Your task to perform on an android device: Open my contact list Image 0: 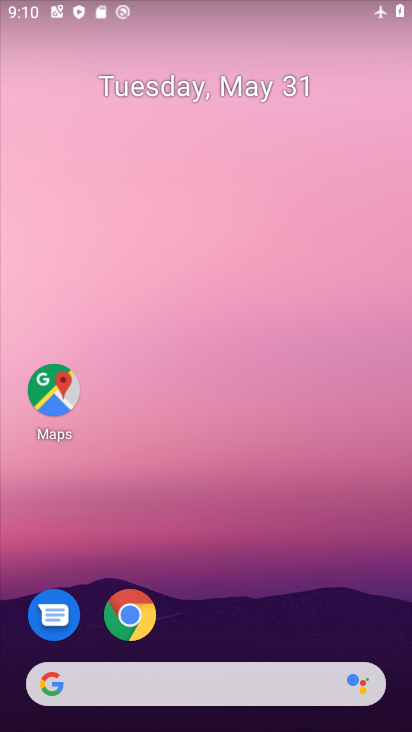
Step 0: drag from (339, 637) to (305, 70)
Your task to perform on an android device: Open my contact list Image 1: 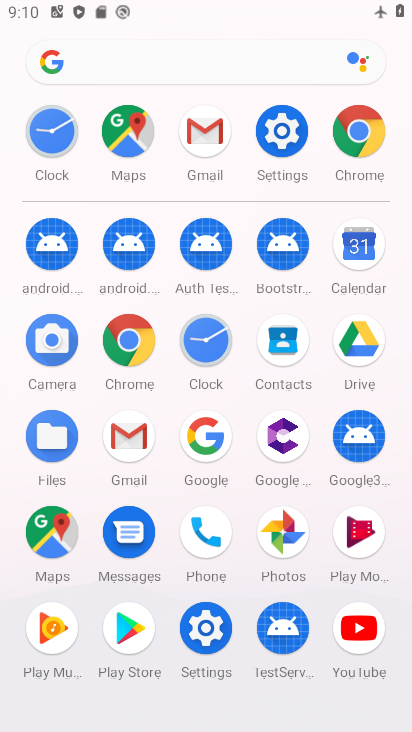
Step 1: click (280, 342)
Your task to perform on an android device: Open my contact list Image 2: 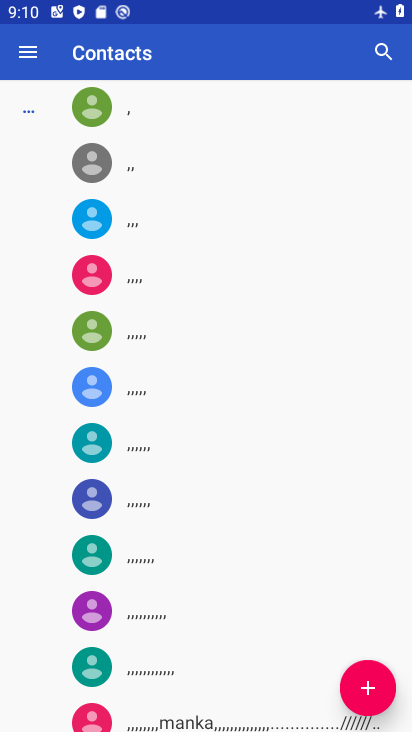
Step 2: task complete